Your task to perform on an android device: View the shopping cart on amazon. Search for "sony triple a" on amazon, select the first entry, and add it to the cart. Image 0: 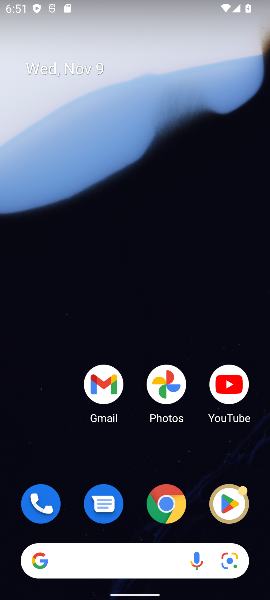
Step 0: click (179, 498)
Your task to perform on an android device: View the shopping cart on amazon. Search for "sony triple a" on amazon, select the first entry, and add it to the cart. Image 1: 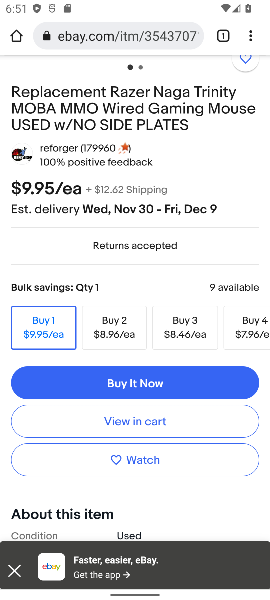
Step 1: click (157, 38)
Your task to perform on an android device: View the shopping cart on amazon. Search for "sony triple a" on amazon, select the first entry, and add it to the cart. Image 2: 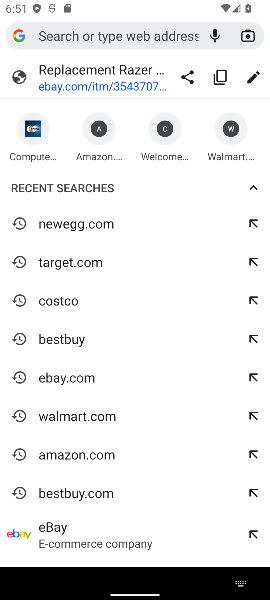
Step 2: type "amazon"
Your task to perform on an android device: View the shopping cart on amazon. Search for "sony triple a" on amazon, select the first entry, and add it to the cart. Image 3: 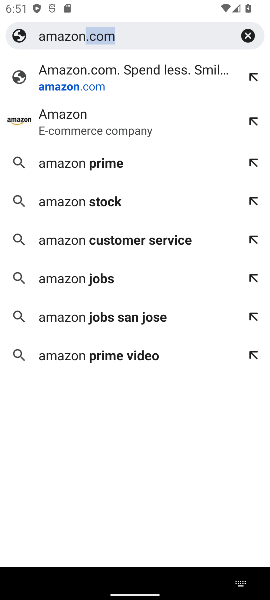
Step 3: click (97, 81)
Your task to perform on an android device: View the shopping cart on amazon. Search for "sony triple a" on amazon, select the first entry, and add it to the cart. Image 4: 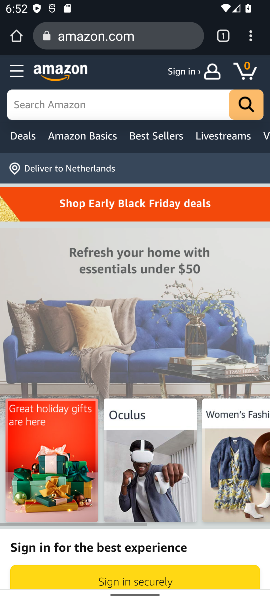
Step 4: click (70, 105)
Your task to perform on an android device: View the shopping cart on amazon. Search for "sony triple a" on amazon, select the first entry, and add it to the cart. Image 5: 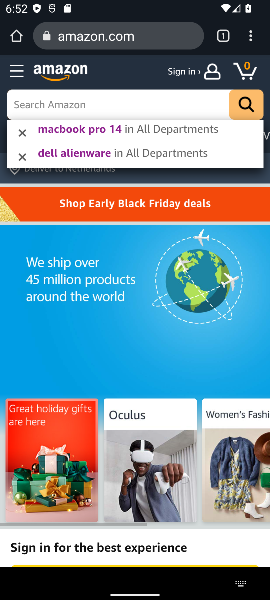
Step 5: type "sony aaa"
Your task to perform on an android device: View the shopping cart on amazon. Search for "sony triple a" on amazon, select the first entry, and add it to the cart. Image 6: 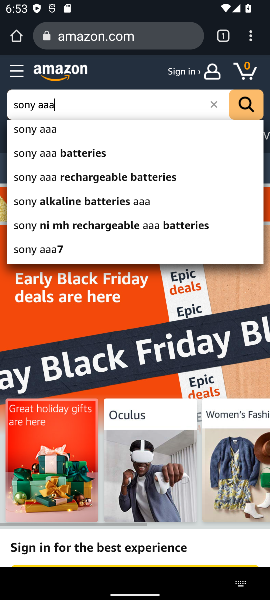
Step 6: click (78, 126)
Your task to perform on an android device: View the shopping cart on amazon. Search for "sony triple a" on amazon, select the first entry, and add it to the cart. Image 7: 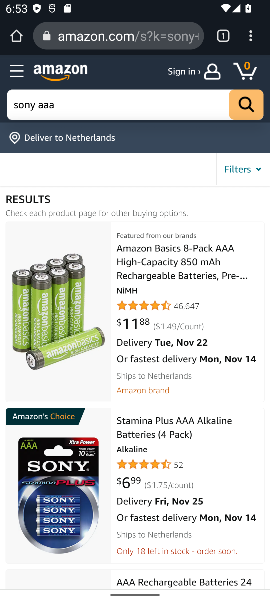
Step 7: click (161, 300)
Your task to perform on an android device: View the shopping cart on amazon. Search for "sony triple a" on amazon, select the first entry, and add it to the cart. Image 8: 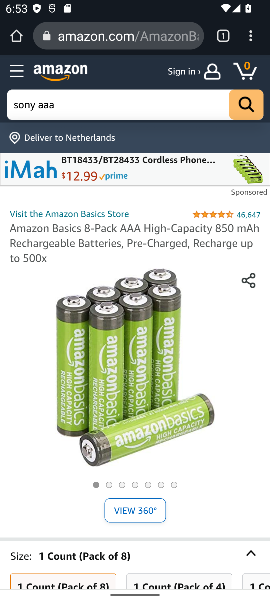
Step 8: drag from (145, 528) to (157, 293)
Your task to perform on an android device: View the shopping cart on amazon. Search for "sony triple a" on amazon, select the first entry, and add it to the cart. Image 9: 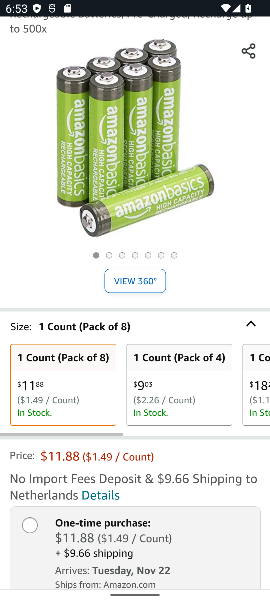
Step 9: drag from (196, 497) to (189, 200)
Your task to perform on an android device: View the shopping cart on amazon. Search for "sony triple a" on amazon, select the first entry, and add it to the cart. Image 10: 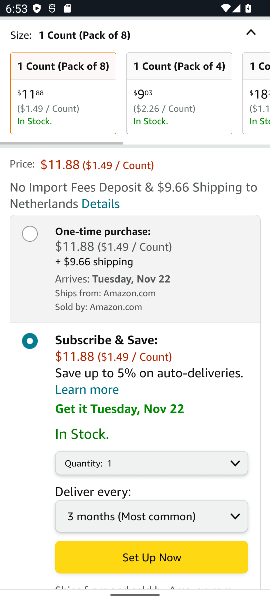
Step 10: drag from (164, 505) to (121, 268)
Your task to perform on an android device: View the shopping cart on amazon. Search for "sony triple a" on amazon, select the first entry, and add it to the cart. Image 11: 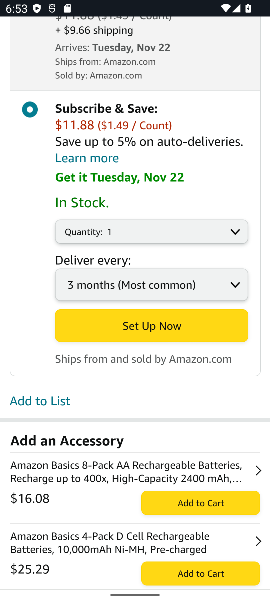
Step 11: drag from (133, 138) to (128, 462)
Your task to perform on an android device: View the shopping cart on amazon. Search for "sony triple a" on amazon, select the first entry, and add it to the cart. Image 12: 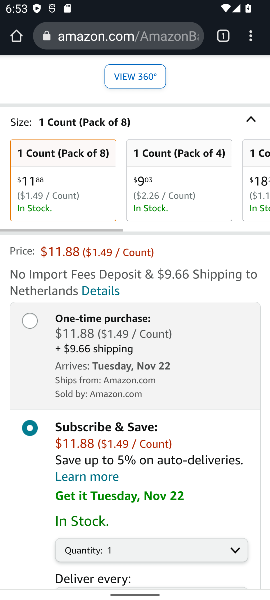
Step 12: drag from (142, 404) to (110, 13)
Your task to perform on an android device: View the shopping cart on amazon. Search for "sony triple a" on amazon, select the first entry, and add it to the cart. Image 13: 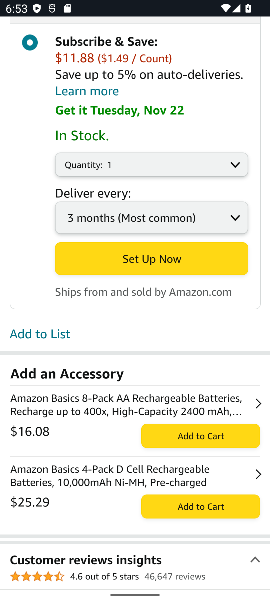
Step 13: click (172, 438)
Your task to perform on an android device: View the shopping cart on amazon. Search for "sony triple a" on amazon, select the first entry, and add it to the cart. Image 14: 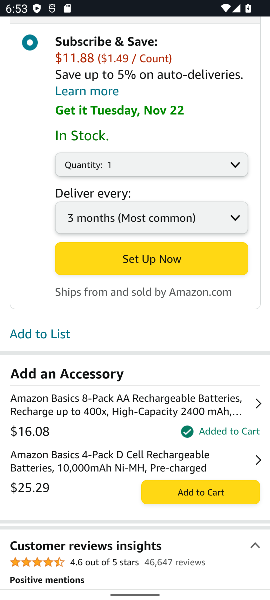
Step 14: task complete